Your task to perform on an android device: Do I have any events today? Image 0: 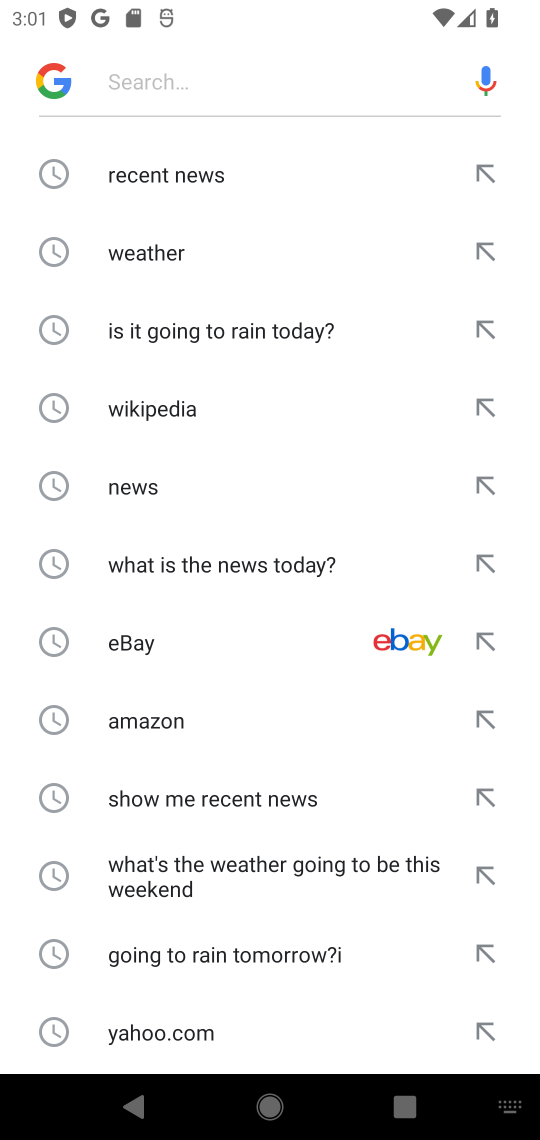
Step 0: press home button
Your task to perform on an android device: Do I have any events today? Image 1: 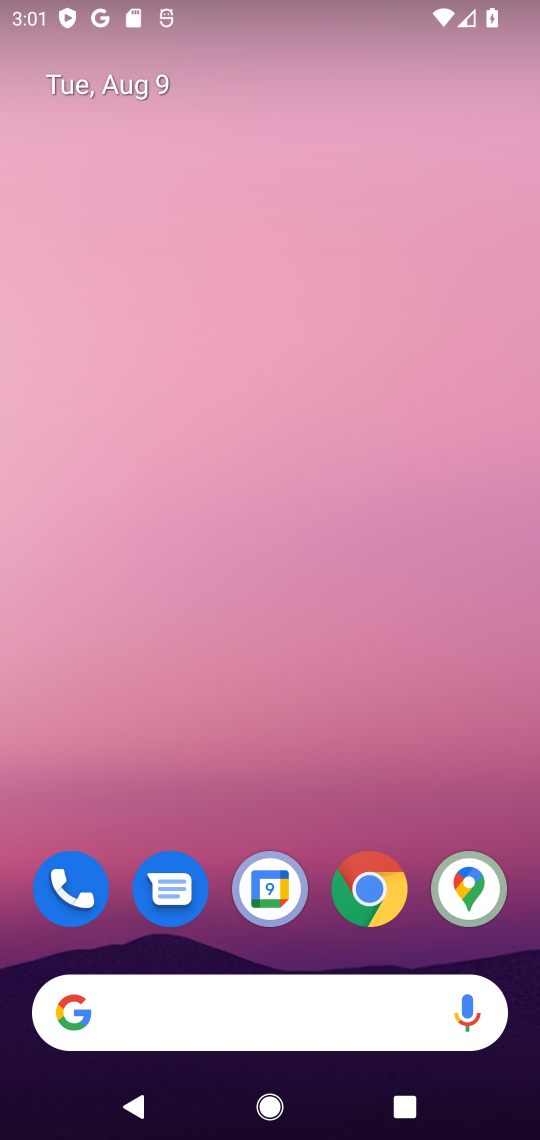
Step 1: drag from (272, 774) to (278, 10)
Your task to perform on an android device: Do I have any events today? Image 2: 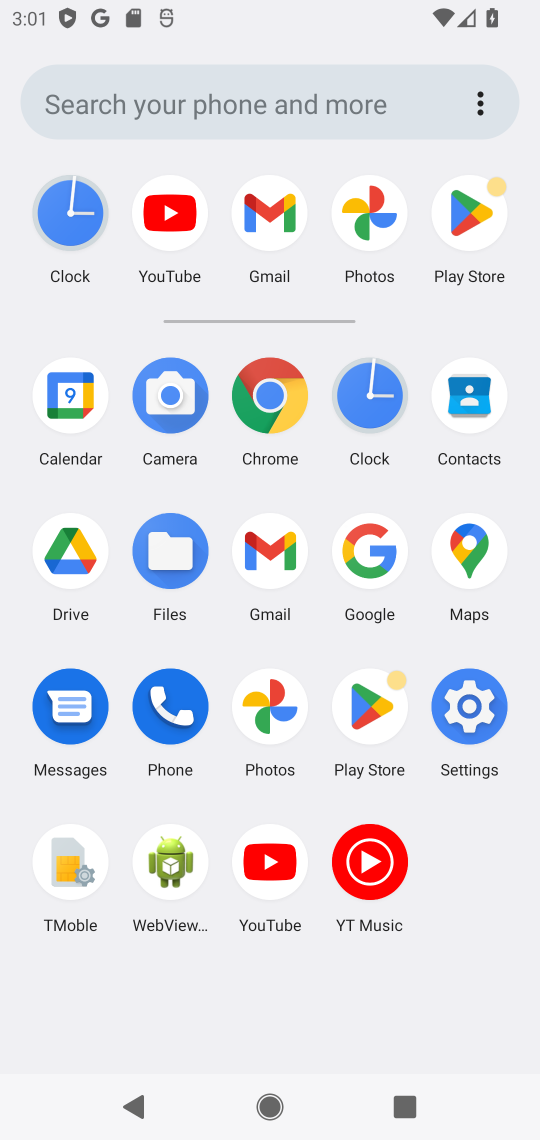
Step 2: click (84, 396)
Your task to perform on an android device: Do I have any events today? Image 3: 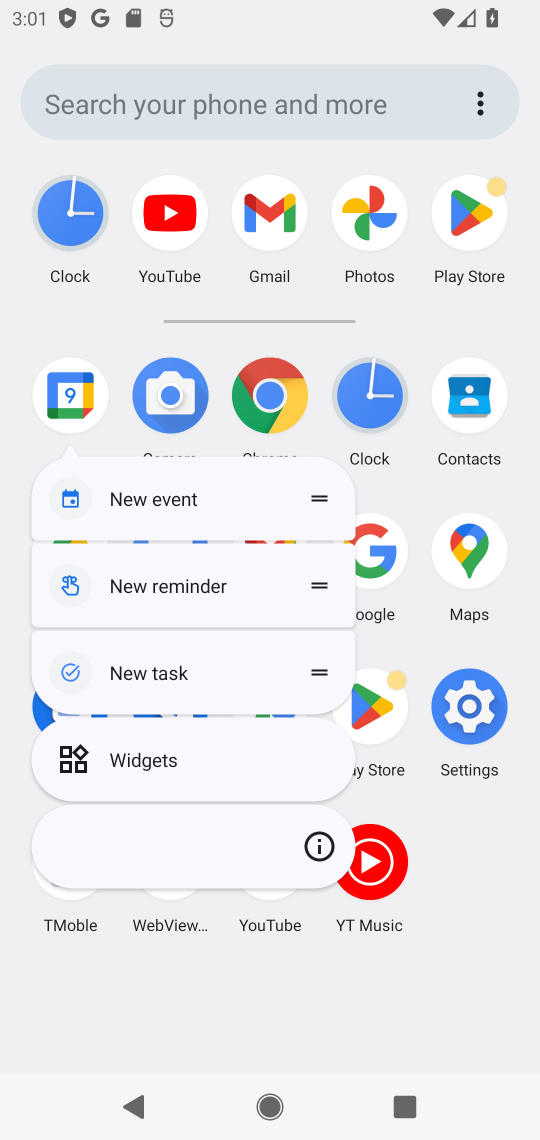
Step 3: click (75, 393)
Your task to perform on an android device: Do I have any events today? Image 4: 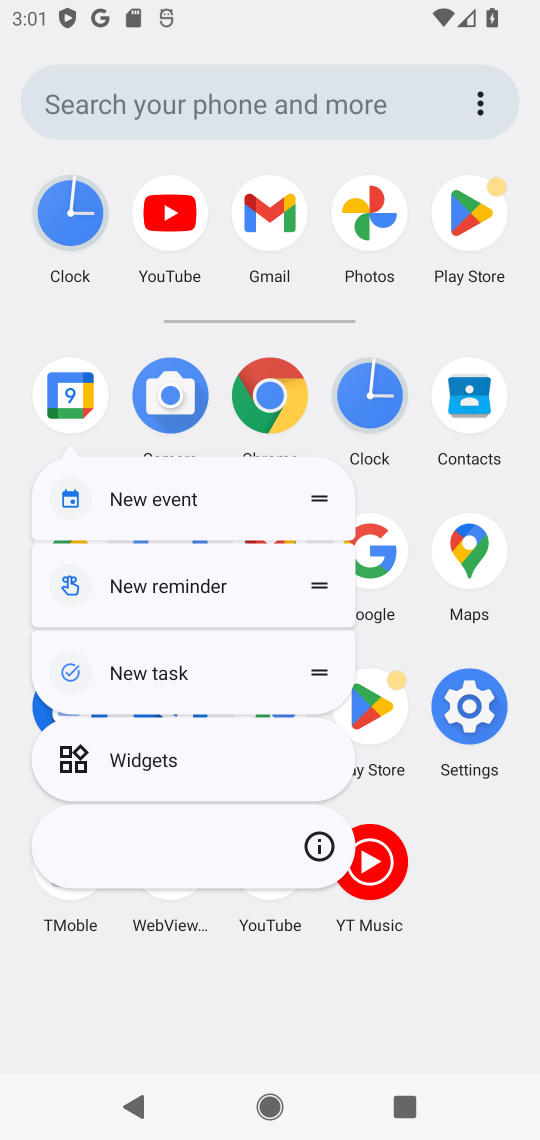
Step 4: click (75, 389)
Your task to perform on an android device: Do I have any events today? Image 5: 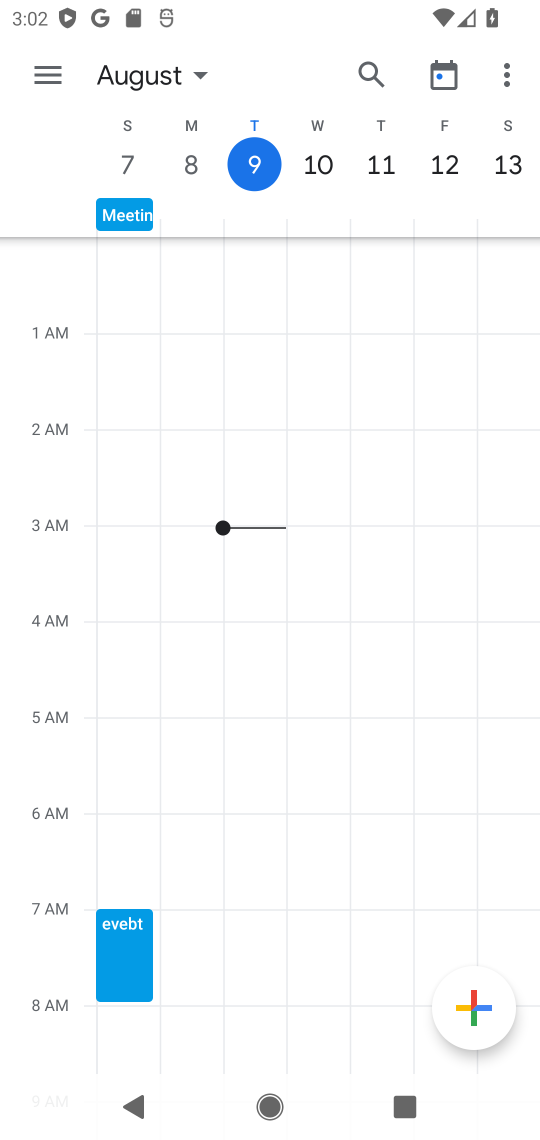
Step 5: task complete